Your task to perform on an android device: Go to notification settings Image 0: 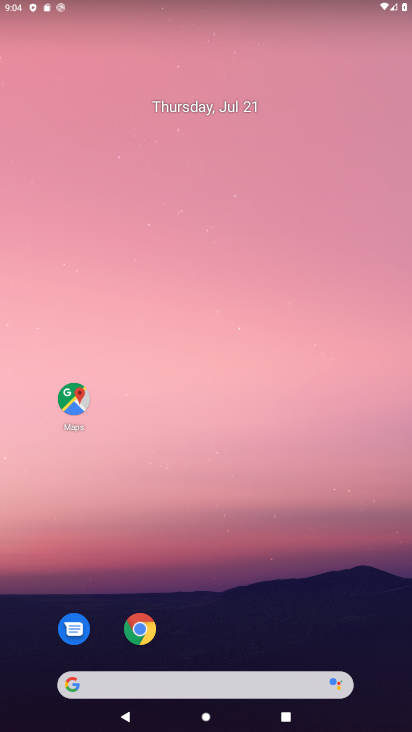
Step 0: drag from (359, 634) to (317, 23)
Your task to perform on an android device: Go to notification settings Image 1: 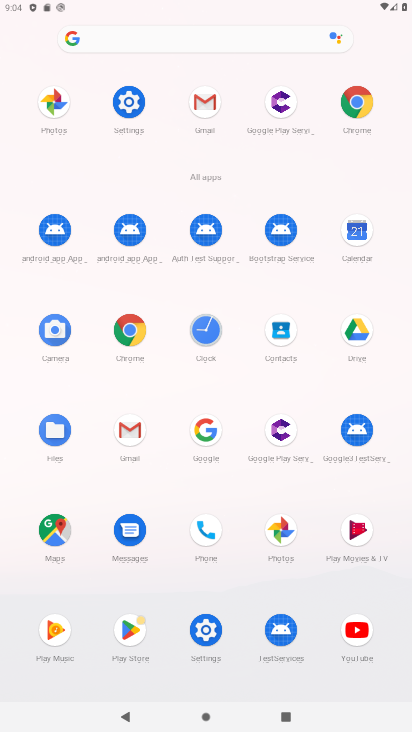
Step 1: click (218, 631)
Your task to perform on an android device: Go to notification settings Image 2: 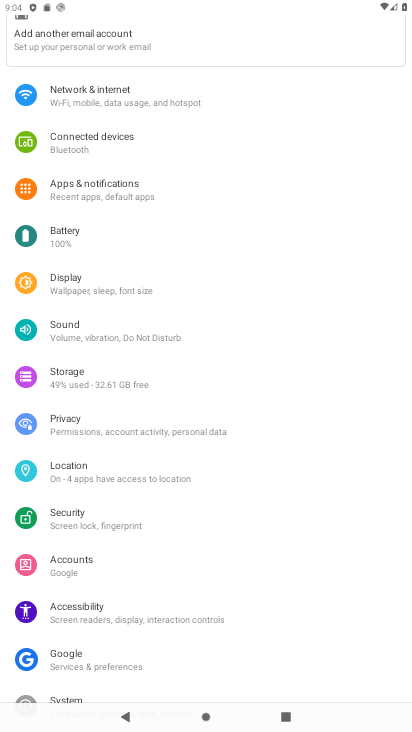
Step 2: click (200, 174)
Your task to perform on an android device: Go to notification settings Image 3: 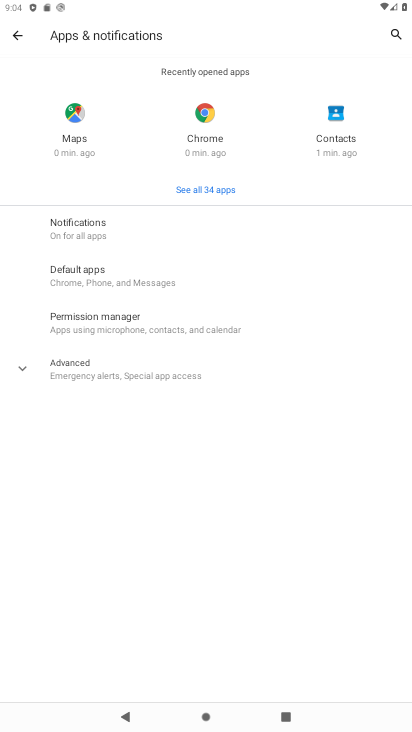
Step 3: click (151, 393)
Your task to perform on an android device: Go to notification settings Image 4: 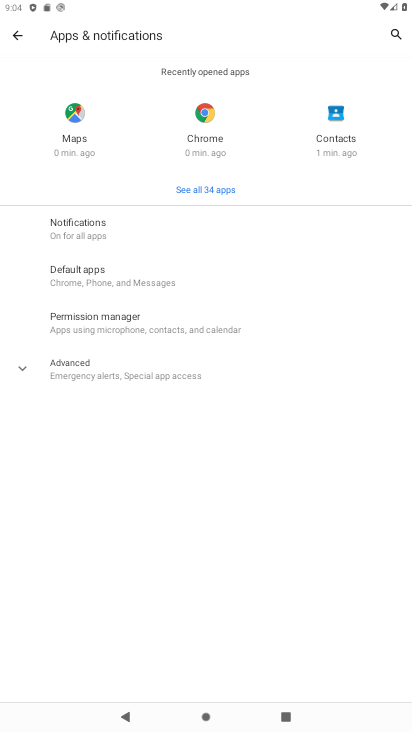
Step 4: click (151, 393)
Your task to perform on an android device: Go to notification settings Image 5: 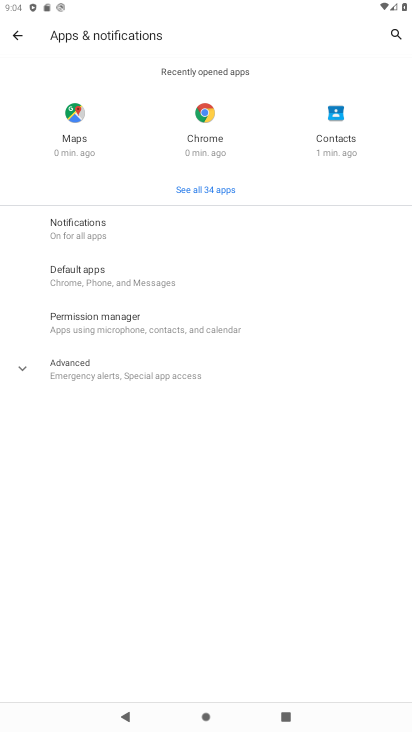
Step 5: click (151, 393)
Your task to perform on an android device: Go to notification settings Image 6: 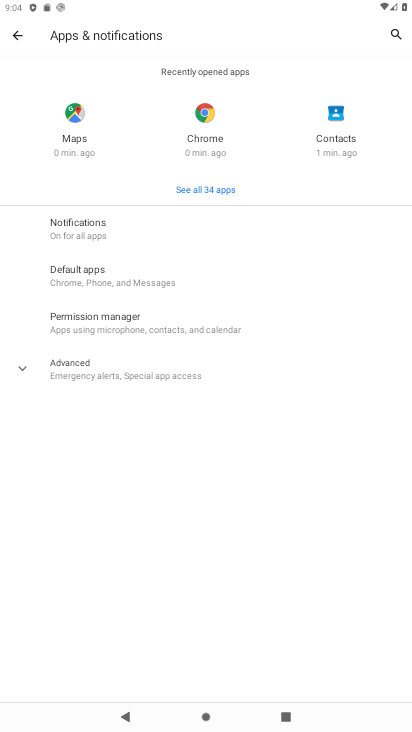
Step 6: task complete